Your task to perform on an android device: Do I have any events this weekend? Image 0: 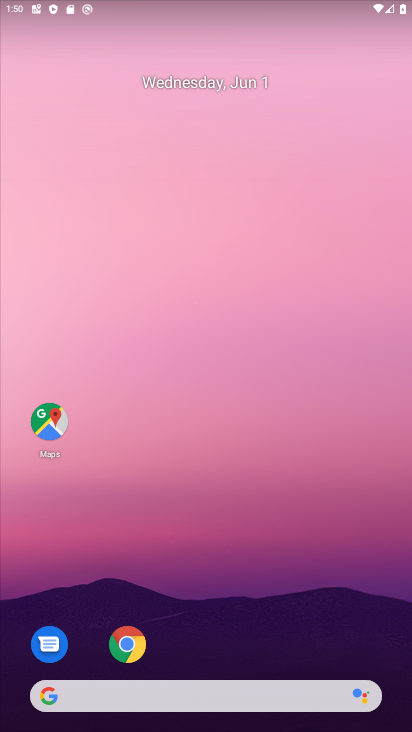
Step 0: drag from (173, 593) to (194, 280)
Your task to perform on an android device: Do I have any events this weekend? Image 1: 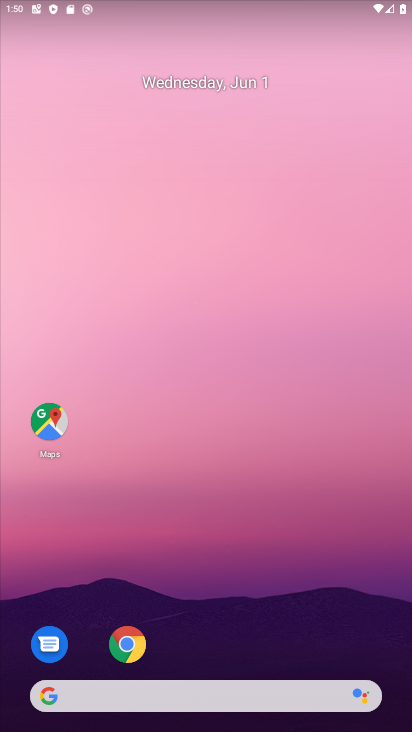
Step 1: drag from (204, 635) to (285, 223)
Your task to perform on an android device: Do I have any events this weekend? Image 2: 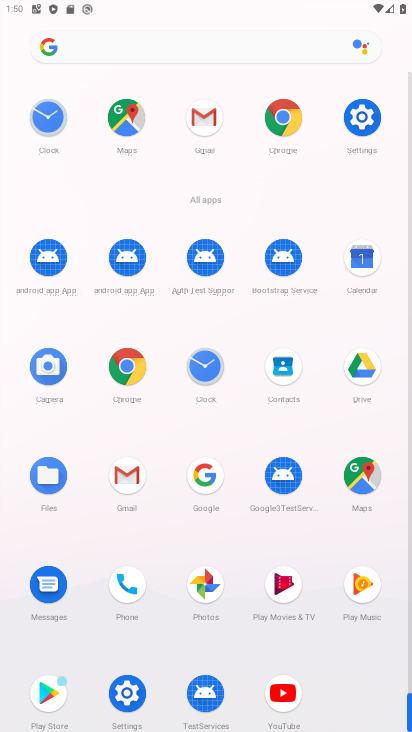
Step 2: click (359, 255)
Your task to perform on an android device: Do I have any events this weekend? Image 3: 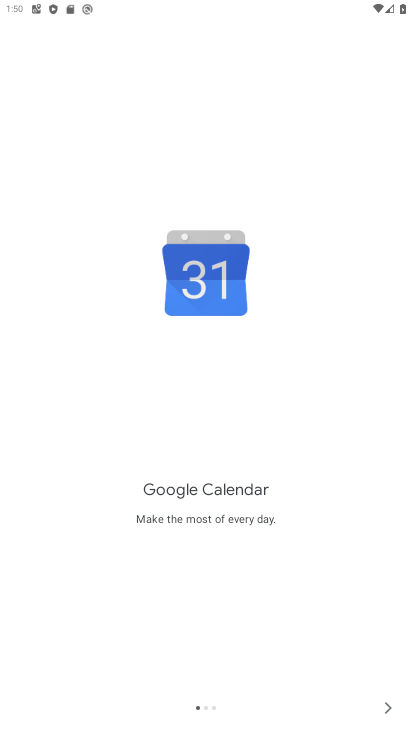
Step 3: click (390, 700)
Your task to perform on an android device: Do I have any events this weekend? Image 4: 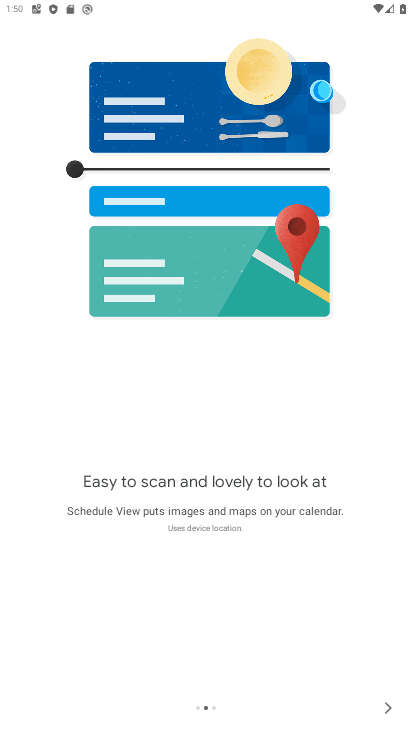
Step 4: click (390, 700)
Your task to perform on an android device: Do I have any events this weekend? Image 5: 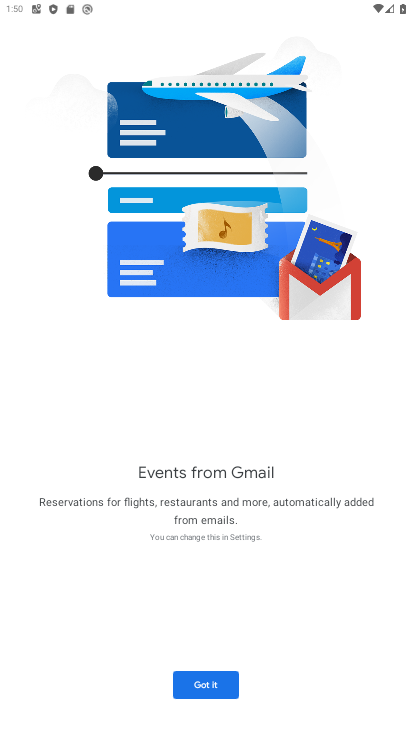
Step 5: click (187, 680)
Your task to perform on an android device: Do I have any events this weekend? Image 6: 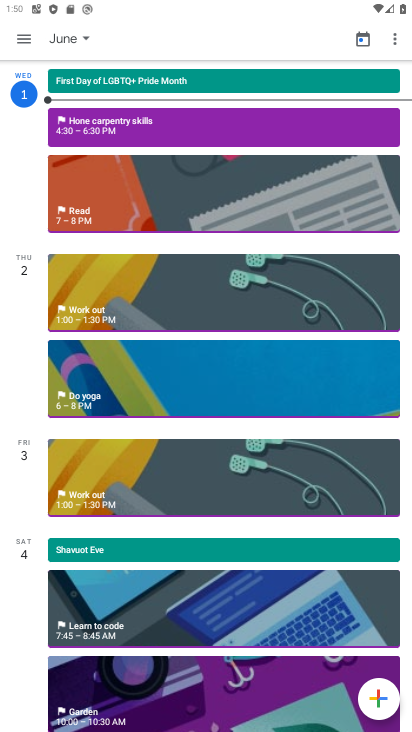
Step 6: click (71, 41)
Your task to perform on an android device: Do I have any events this weekend? Image 7: 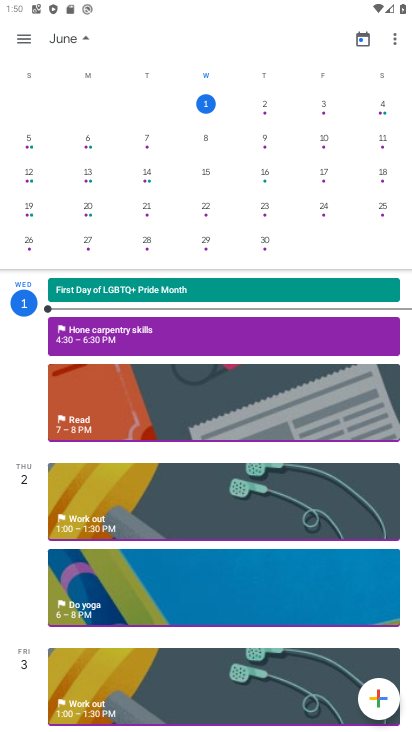
Step 7: click (383, 107)
Your task to perform on an android device: Do I have any events this weekend? Image 8: 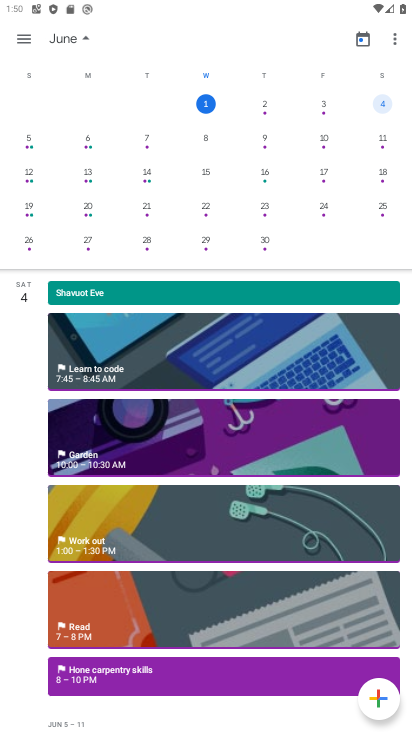
Step 8: click (33, 141)
Your task to perform on an android device: Do I have any events this weekend? Image 9: 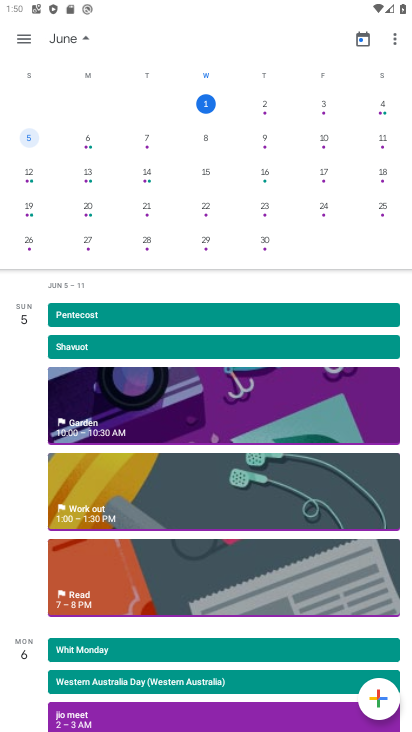
Step 9: task complete